Your task to perform on an android device: turn on location history Image 0: 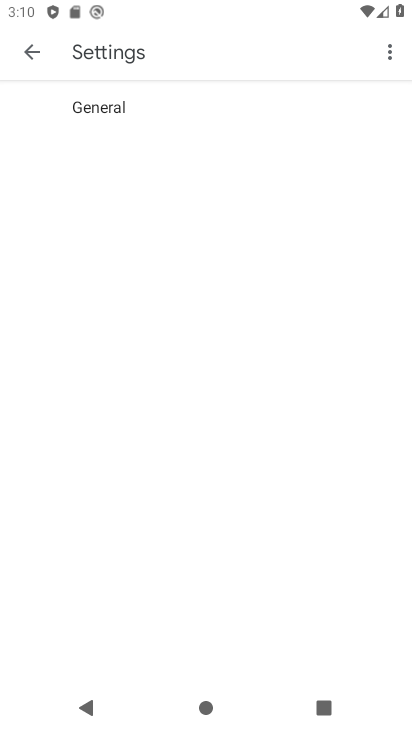
Step 0: press home button
Your task to perform on an android device: turn on location history Image 1: 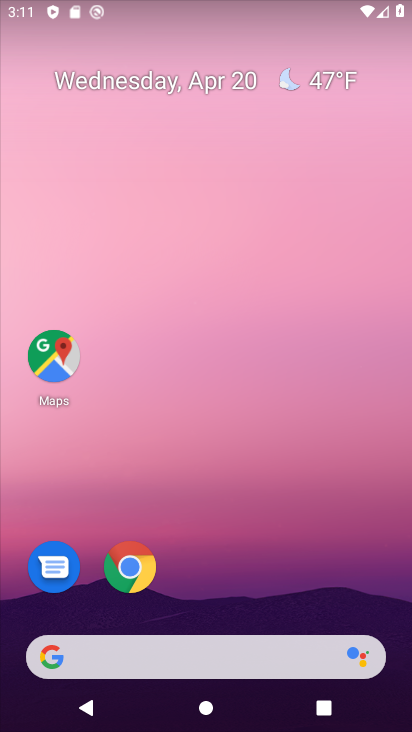
Step 1: click (60, 349)
Your task to perform on an android device: turn on location history Image 2: 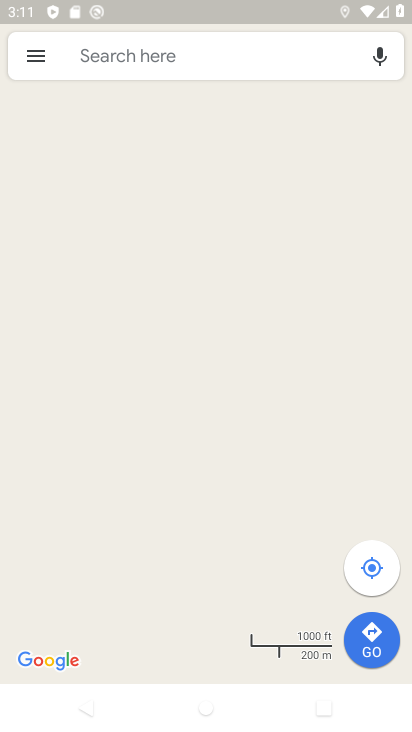
Step 2: click (37, 73)
Your task to perform on an android device: turn on location history Image 3: 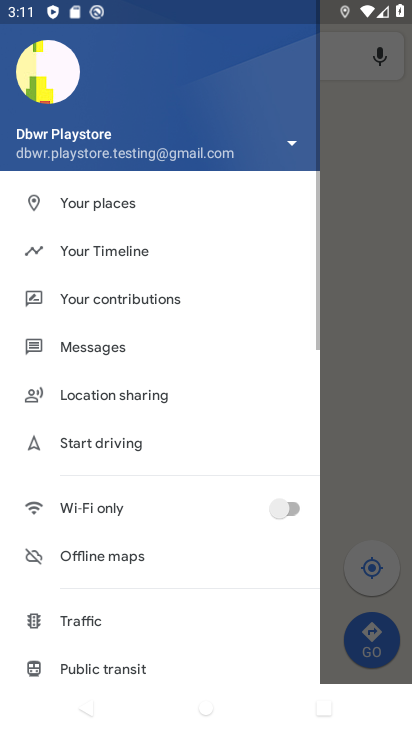
Step 3: click (174, 264)
Your task to perform on an android device: turn on location history Image 4: 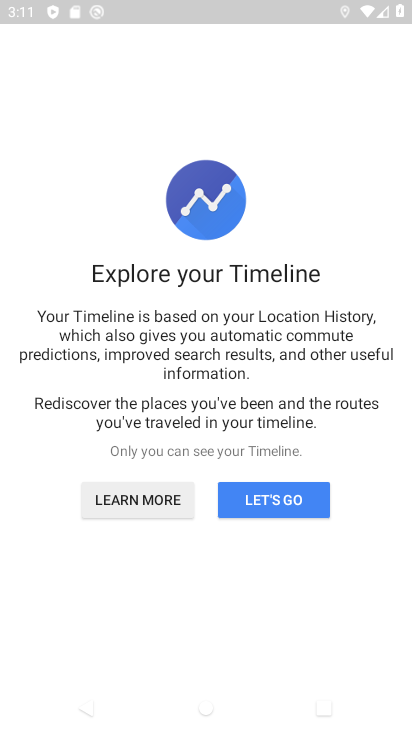
Step 4: click (255, 497)
Your task to perform on an android device: turn on location history Image 5: 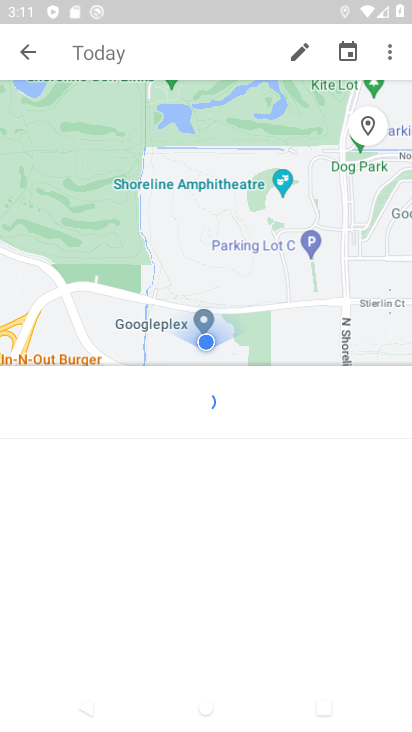
Step 5: click (255, 497)
Your task to perform on an android device: turn on location history Image 6: 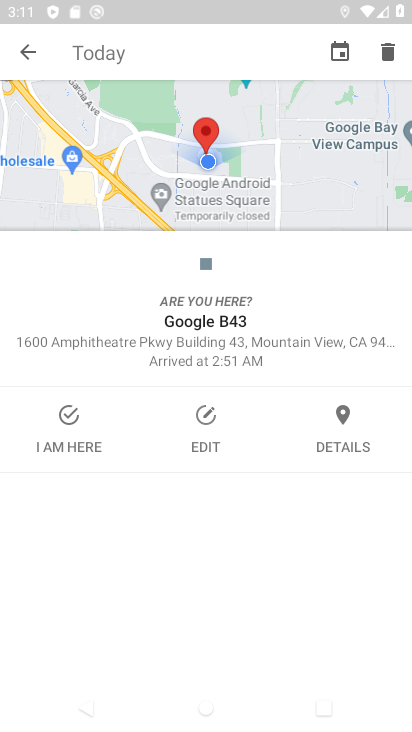
Step 6: click (36, 63)
Your task to perform on an android device: turn on location history Image 7: 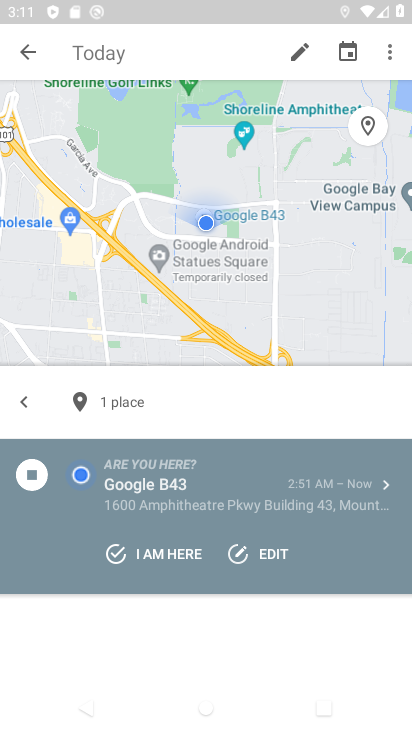
Step 7: click (388, 59)
Your task to perform on an android device: turn on location history Image 8: 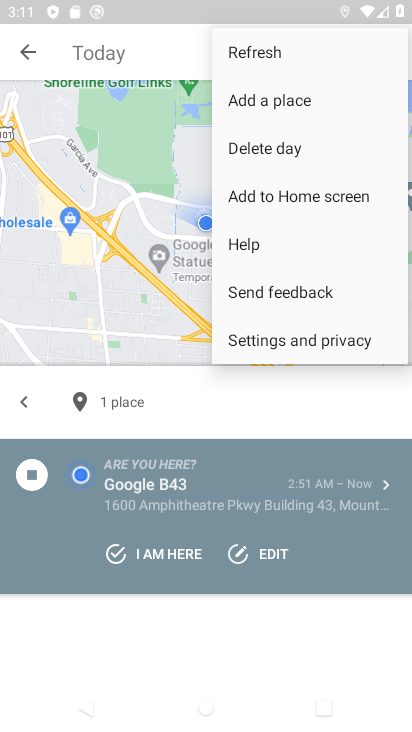
Step 8: click (292, 339)
Your task to perform on an android device: turn on location history Image 9: 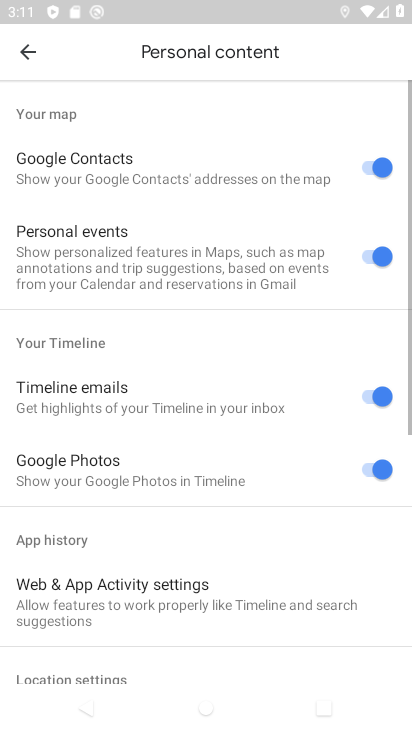
Step 9: drag from (149, 525) to (170, 164)
Your task to perform on an android device: turn on location history Image 10: 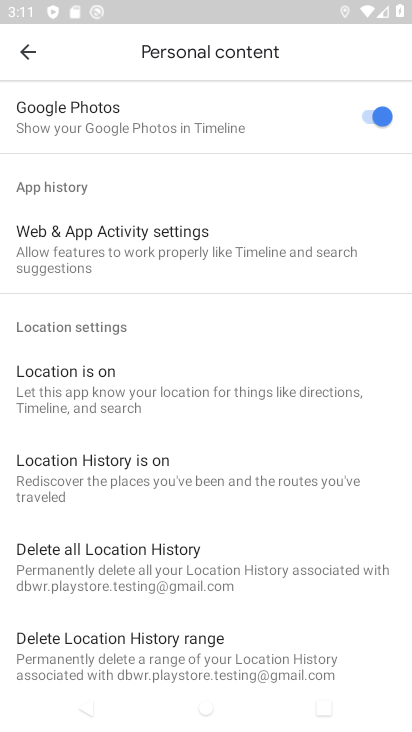
Step 10: click (142, 489)
Your task to perform on an android device: turn on location history Image 11: 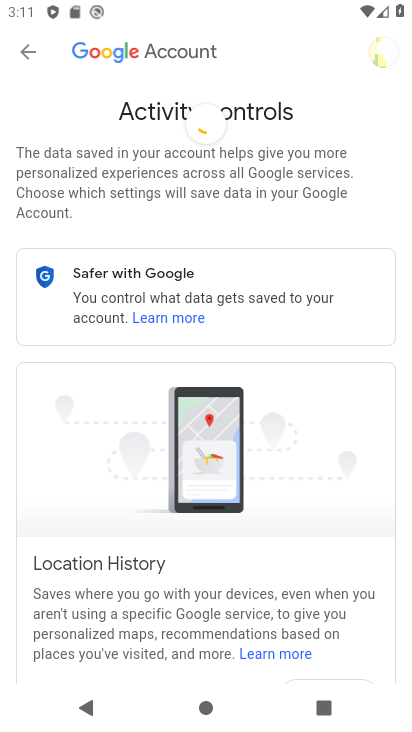
Step 11: task complete